Your task to perform on an android device: change text size in settings app Image 0: 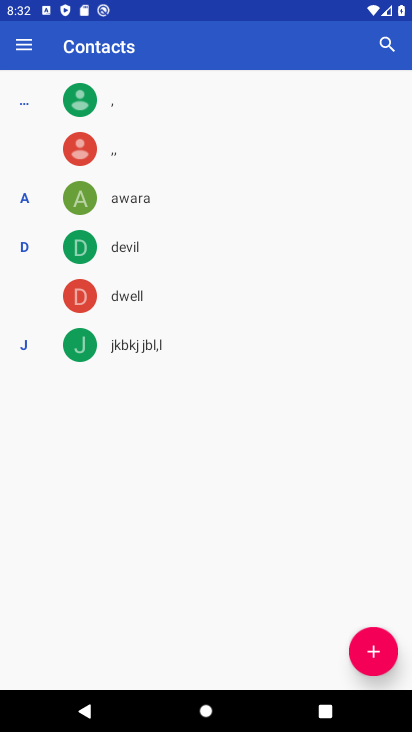
Step 0: press home button
Your task to perform on an android device: change text size in settings app Image 1: 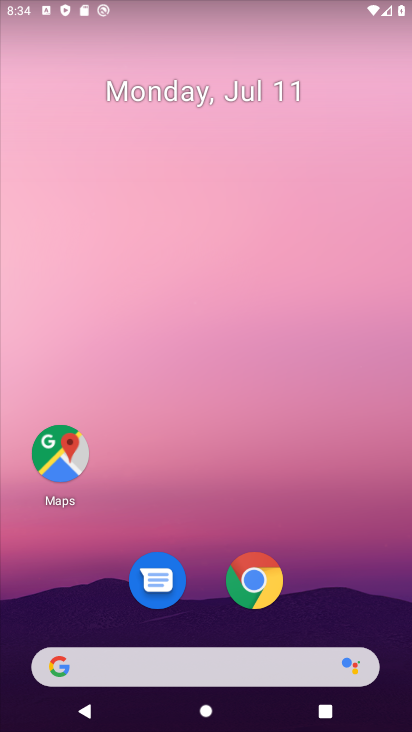
Step 1: drag from (390, 655) to (265, 73)
Your task to perform on an android device: change text size in settings app Image 2: 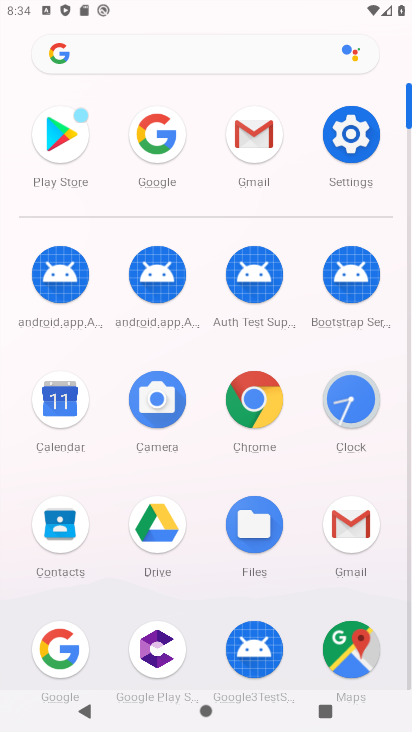
Step 2: click (342, 131)
Your task to perform on an android device: change text size in settings app Image 3: 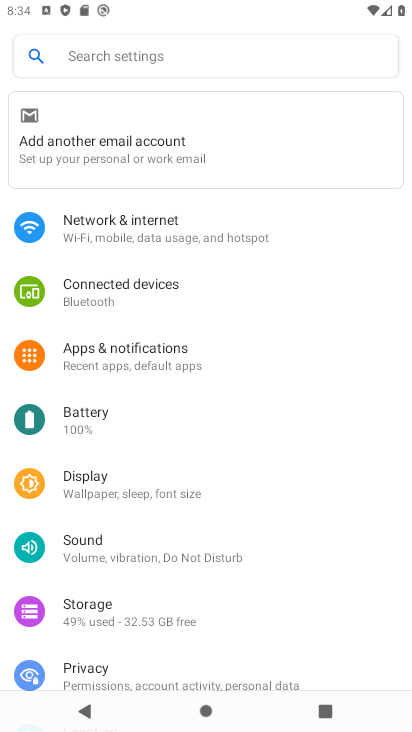
Step 3: click (115, 477)
Your task to perform on an android device: change text size in settings app Image 4: 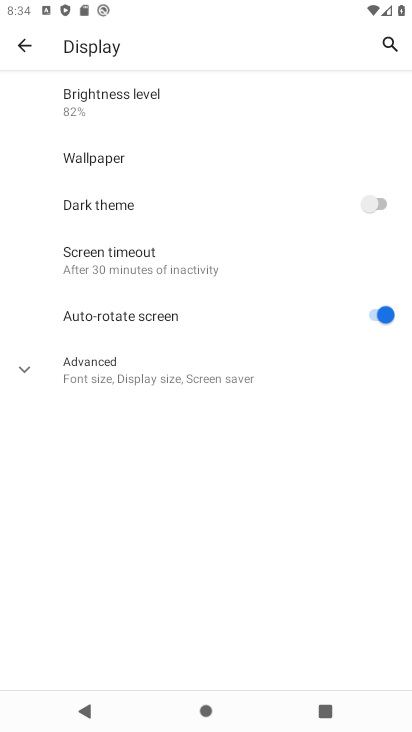
Step 4: click (46, 353)
Your task to perform on an android device: change text size in settings app Image 5: 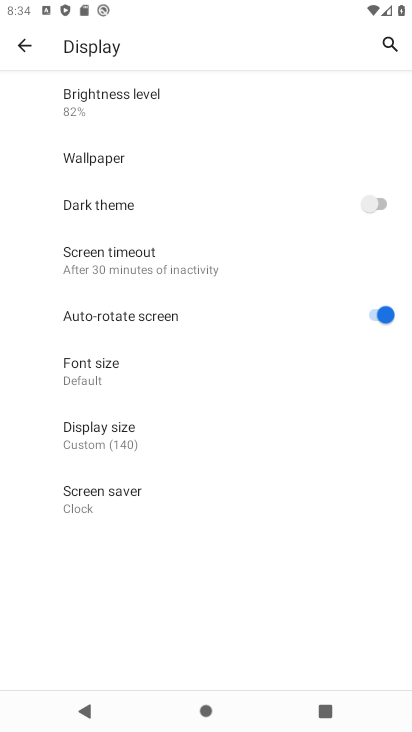
Step 5: click (114, 376)
Your task to perform on an android device: change text size in settings app Image 6: 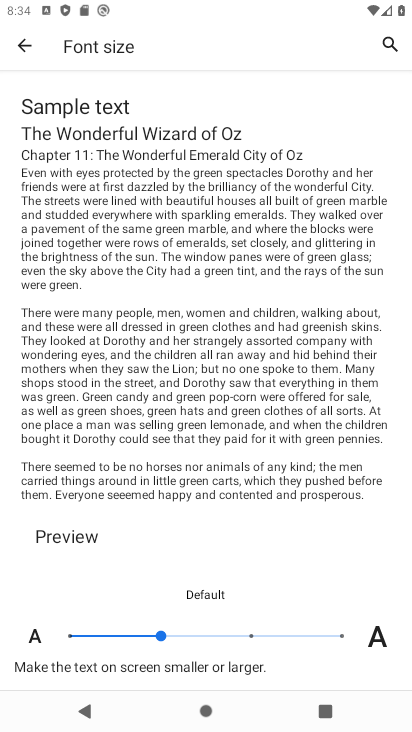
Step 6: click (254, 635)
Your task to perform on an android device: change text size in settings app Image 7: 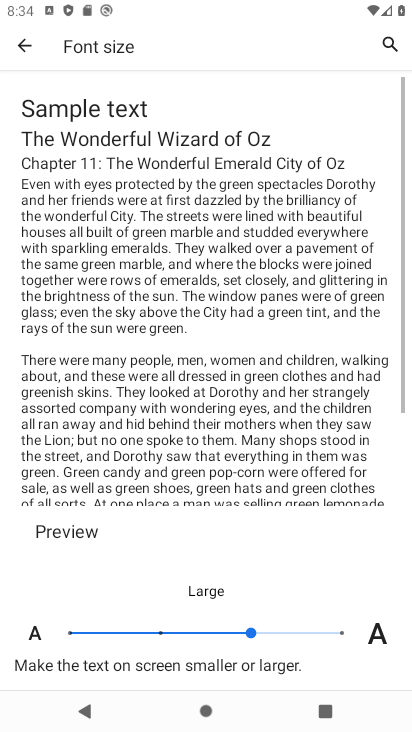
Step 7: task complete